Your task to perform on an android device: Show the shopping cart on ebay. Search for "rayovac triple a" on ebay, select the first entry, add it to the cart, then select checkout. Image 0: 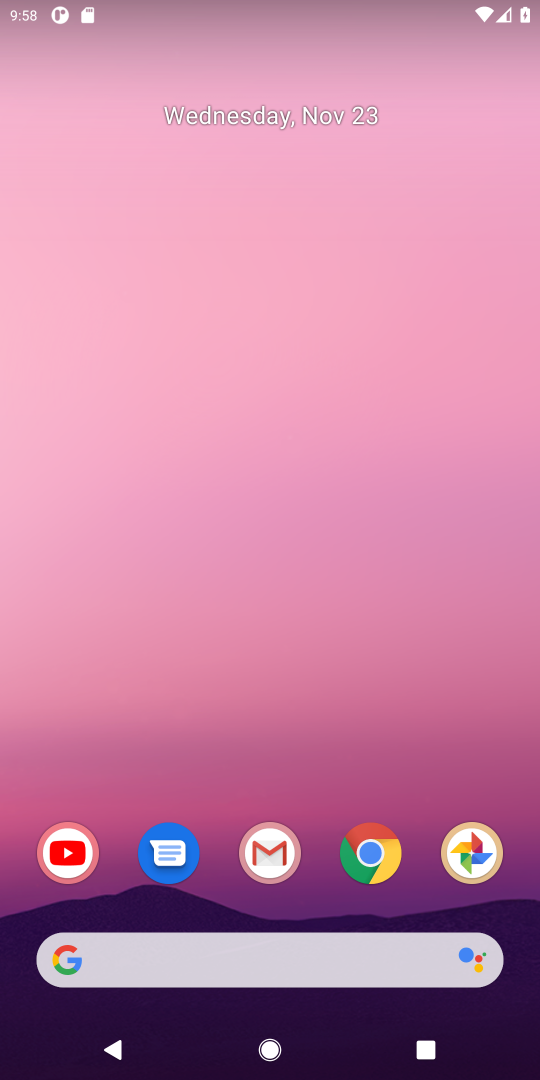
Step 0: click (376, 856)
Your task to perform on an android device: Show the shopping cart on ebay. Search for "rayovac triple a" on ebay, select the first entry, add it to the cart, then select checkout. Image 1: 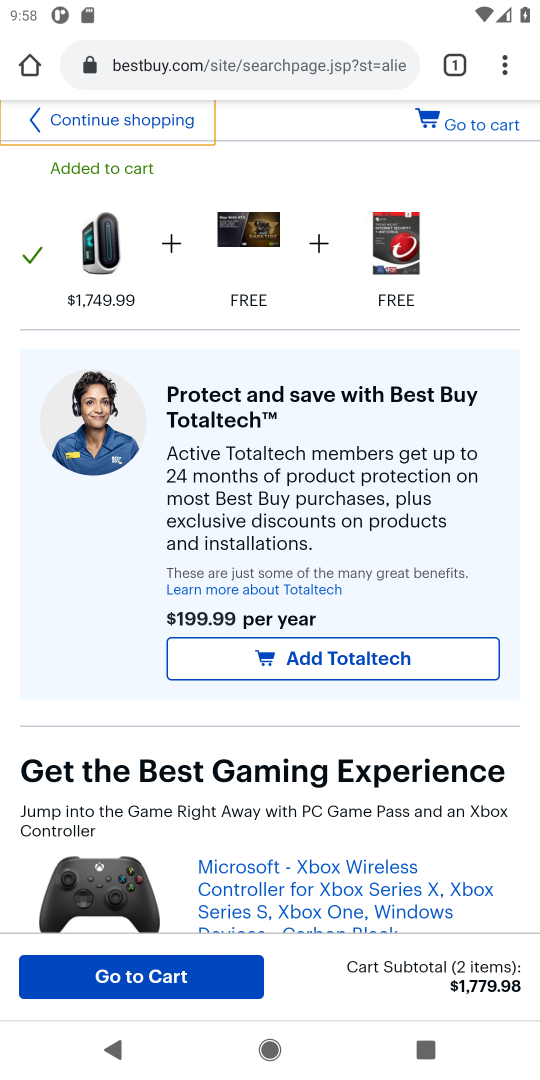
Step 1: click (178, 65)
Your task to perform on an android device: Show the shopping cart on ebay. Search for "rayovac triple a" on ebay, select the first entry, add it to the cart, then select checkout. Image 2: 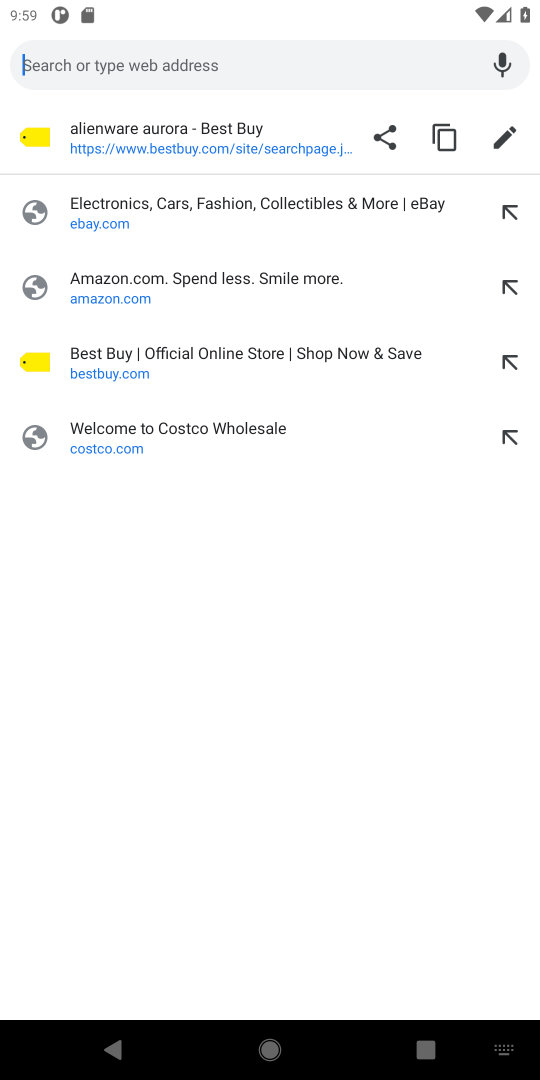
Step 2: click (108, 224)
Your task to perform on an android device: Show the shopping cart on ebay. Search for "rayovac triple a" on ebay, select the first entry, add it to the cart, then select checkout. Image 3: 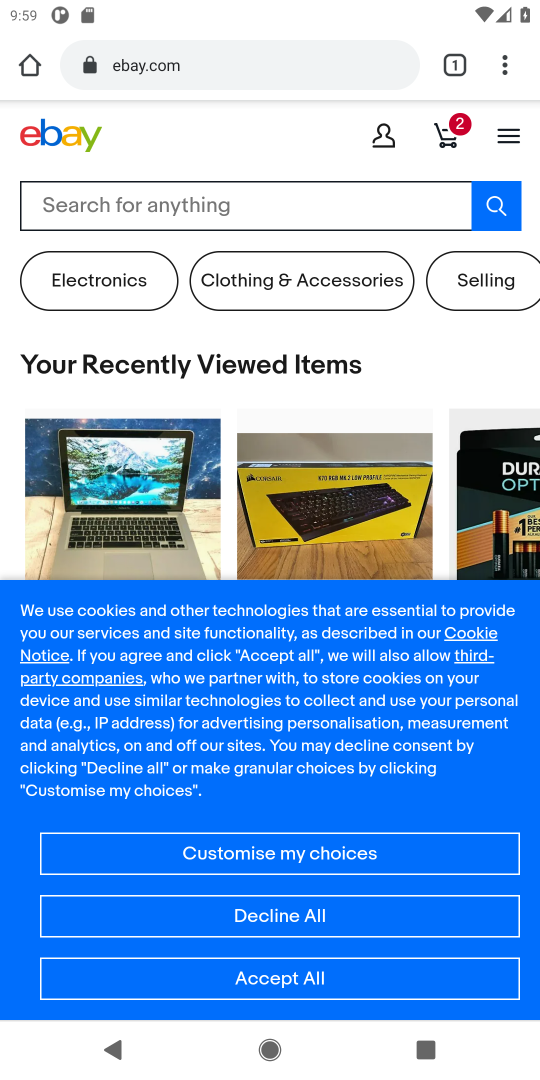
Step 3: click (462, 133)
Your task to perform on an android device: Show the shopping cart on ebay. Search for "rayovac triple a" on ebay, select the first entry, add it to the cart, then select checkout. Image 4: 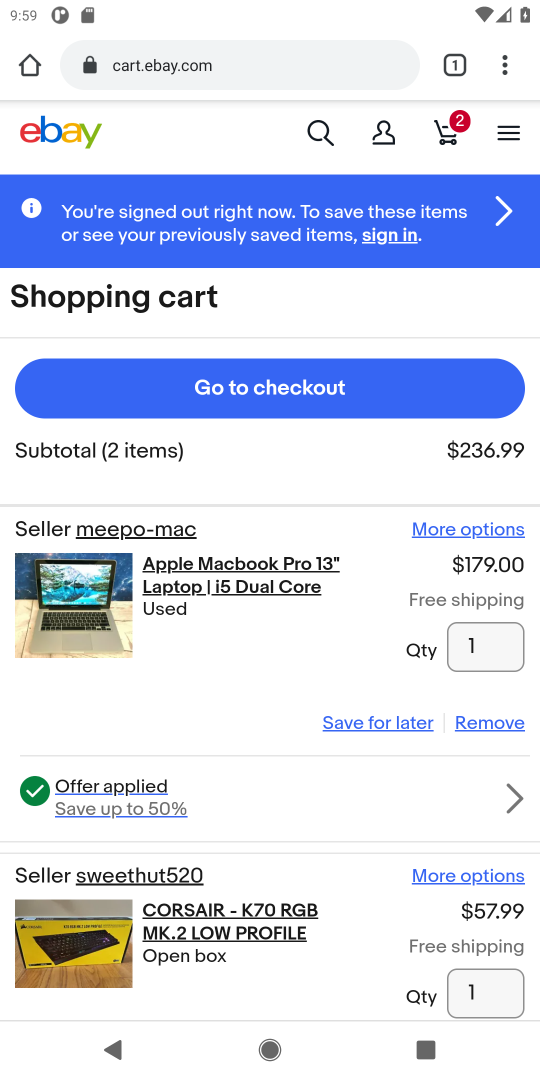
Step 4: click (314, 124)
Your task to perform on an android device: Show the shopping cart on ebay. Search for "rayovac triple a" on ebay, select the first entry, add it to the cart, then select checkout. Image 5: 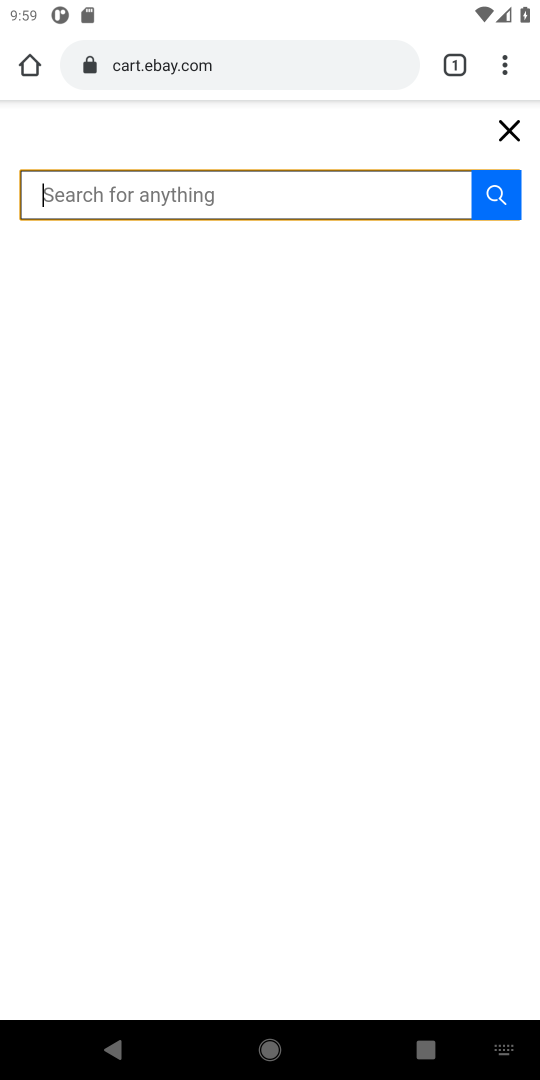
Step 5: type "rayovac triple a"
Your task to perform on an android device: Show the shopping cart on ebay. Search for "rayovac triple a" on ebay, select the first entry, add it to the cart, then select checkout. Image 6: 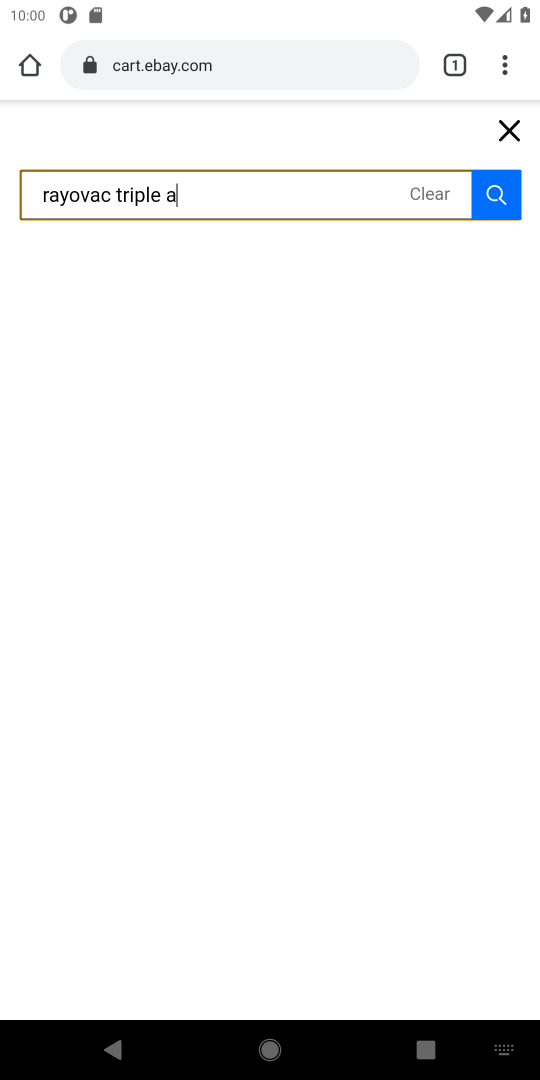
Step 6: click (501, 196)
Your task to perform on an android device: Show the shopping cart on ebay. Search for "rayovac triple a" on ebay, select the first entry, add it to the cart, then select checkout. Image 7: 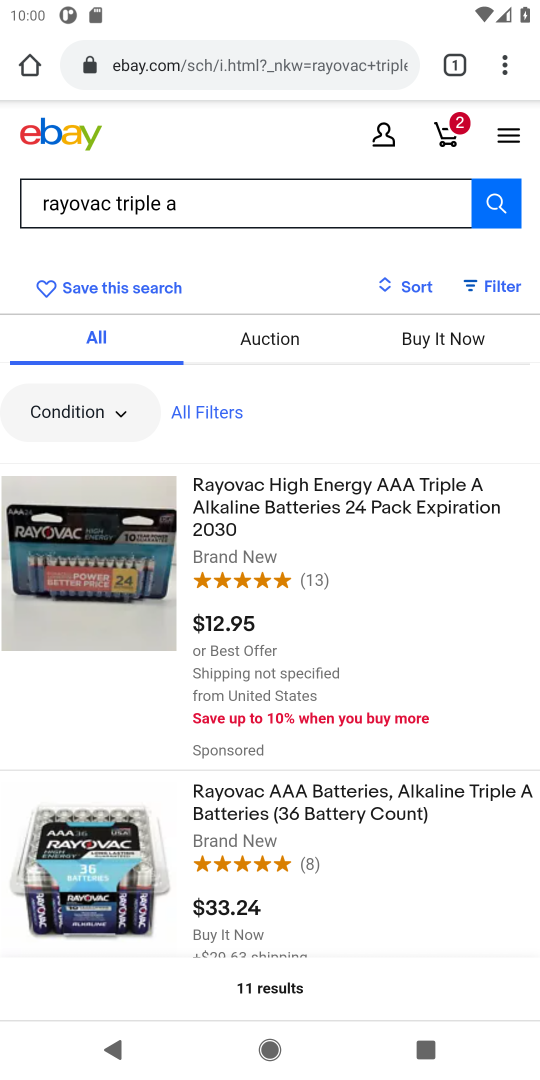
Step 7: click (107, 592)
Your task to perform on an android device: Show the shopping cart on ebay. Search for "rayovac triple a" on ebay, select the first entry, add it to the cart, then select checkout. Image 8: 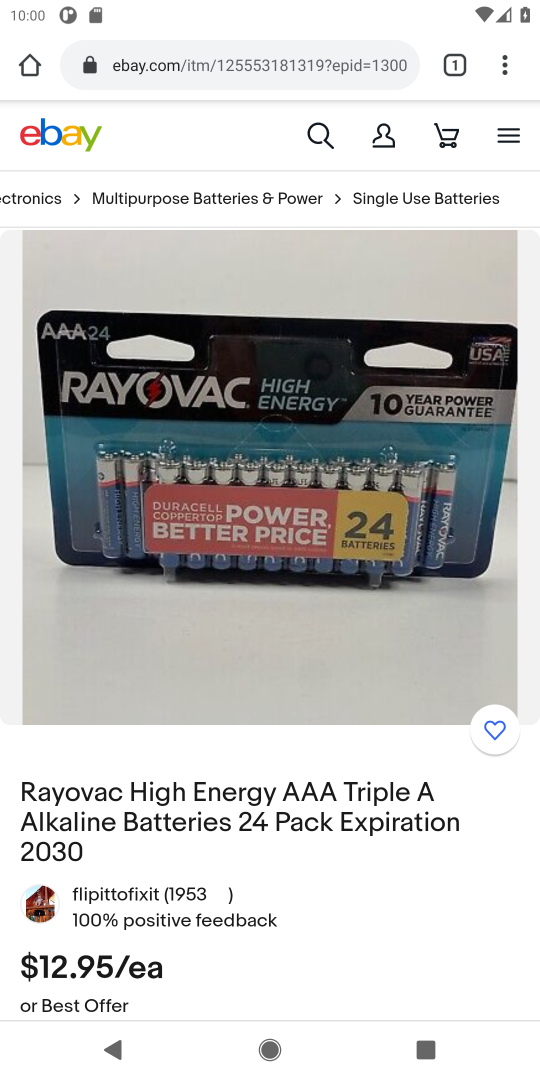
Step 8: drag from (230, 771) to (190, 322)
Your task to perform on an android device: Show the shopping cart on ebay. Search for "rayovac triple a" on ebay, select the first entry, add it to the cart, then select checkout. Image 9: 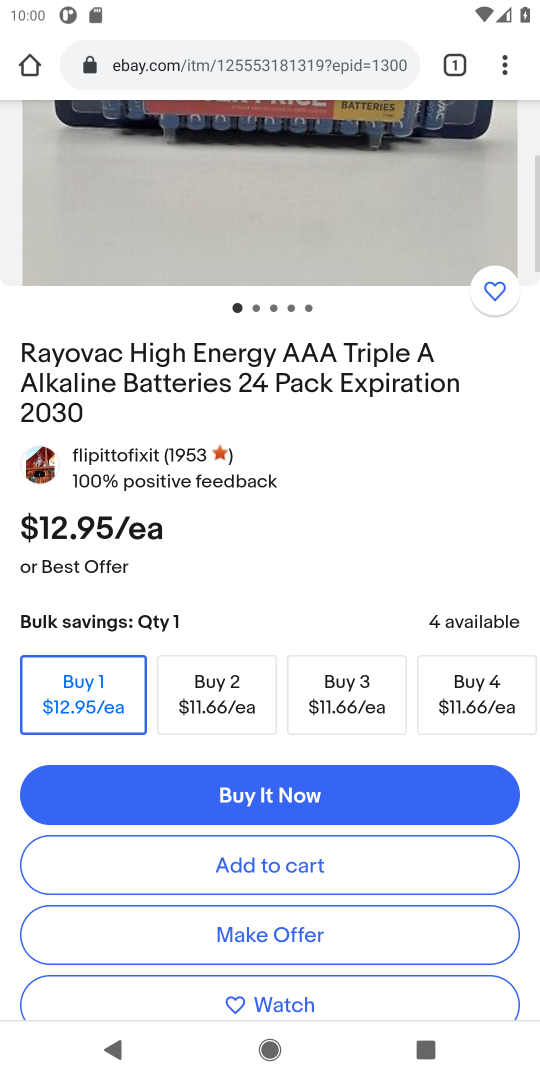
Step 9: drag from (166, 796) to (155, 463)
Your task to perform on an android device: Show the shopping cart on ebay. Search for "rayovac triple a" on ebay, select the first entry, add it to the cart, then select checkout. Image 10: 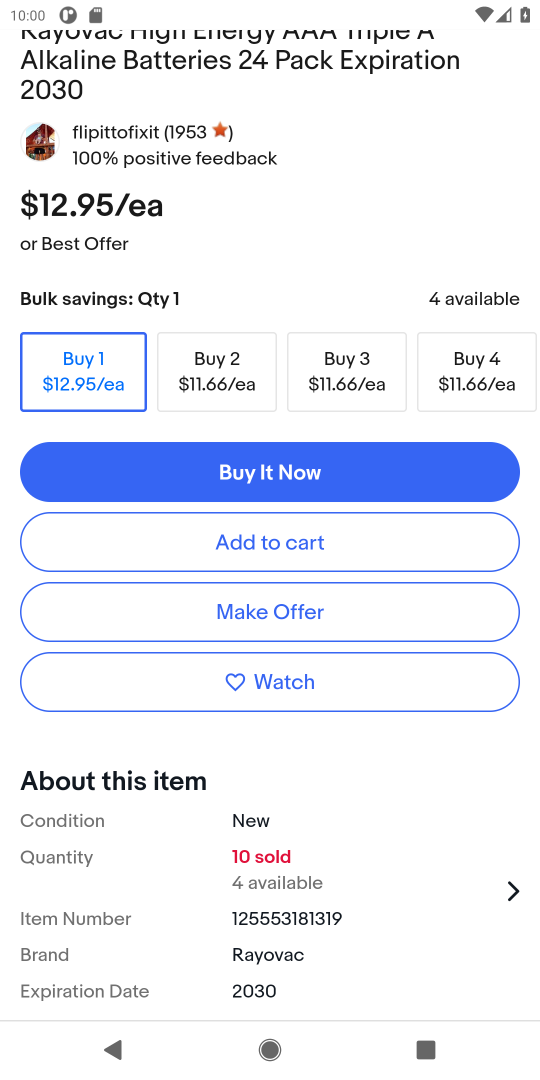
Step 10: click (227, 545)
Your task to perform on an android device: Show the shopping cart on ebay. Search for "rayovac triple a" on ebay, select the first entry, add it to the cart, then select checkout. Image 11: 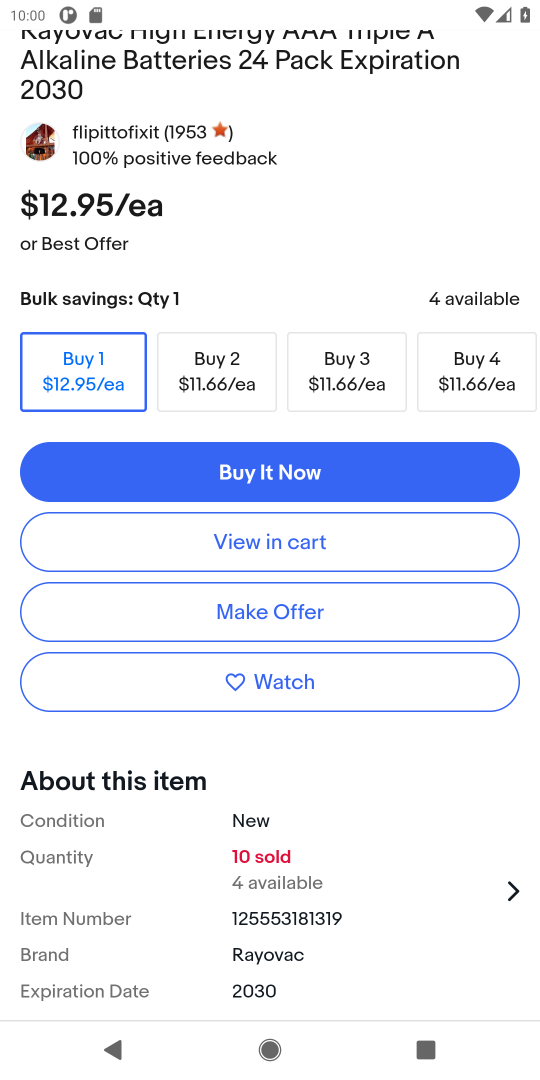
Step 11: click (227, 545)
Your task to perform on an android device: Show the shopping cart on ebay. Search for "rayovac triple a" on ebay, select the first entry, add it to the cart, then select checkout. Image 12: 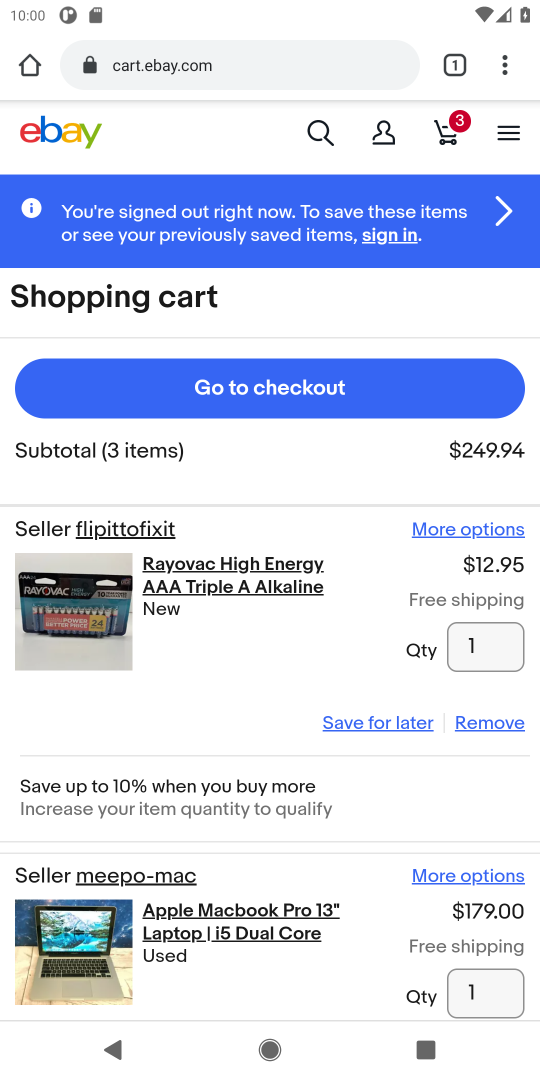
Step 12: click (229, 390)
Your task to perform on an android device: Show the shopping cart on ebay. Search for "rayovac triple a" on ebay, select the first entry, add it to the cart, then select checkout. Image 13: 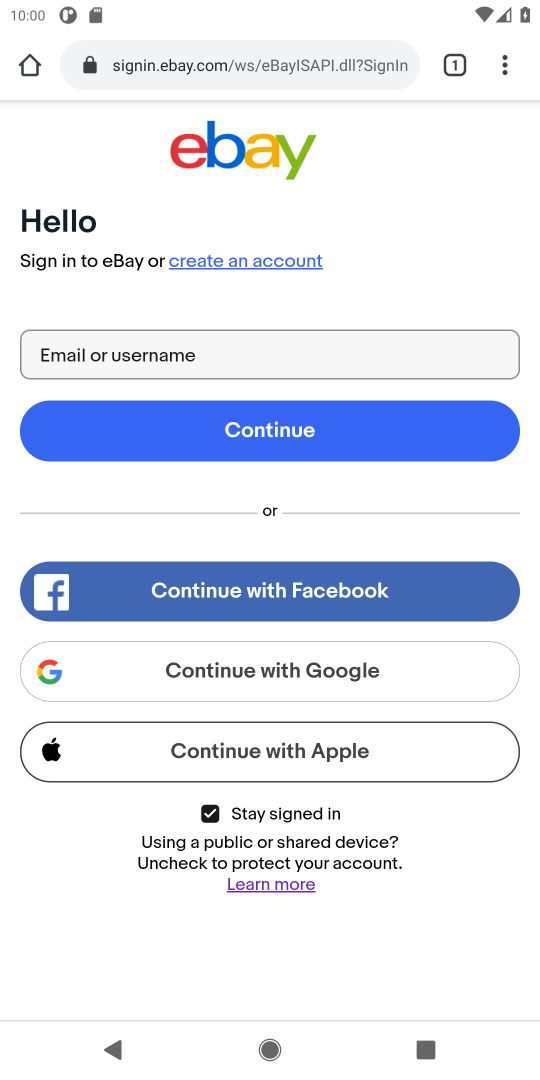
Step 13: task complete